Your task to perform on an android device: Go to sound settings Image 0: 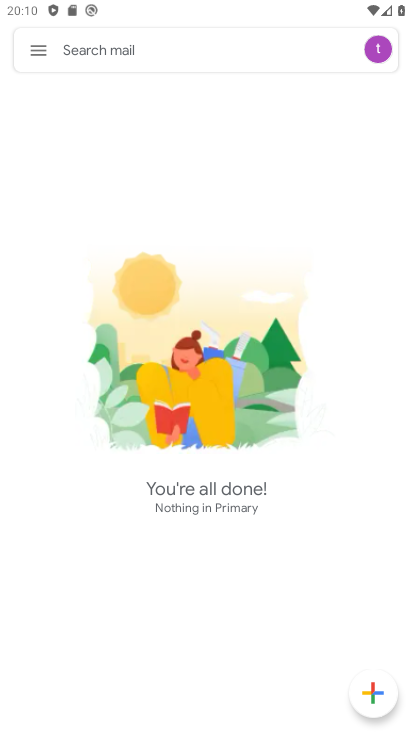
Step 0: press home button
Your task to perform on an android device: Go to sound settings Image 1: 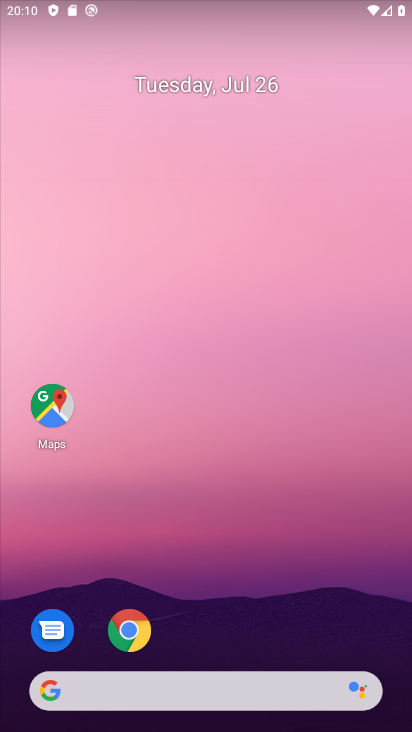
Step 1: drag from (374, 612) to (385, 510)
Your task to perform on an android device: Go to sound settings Image 2: 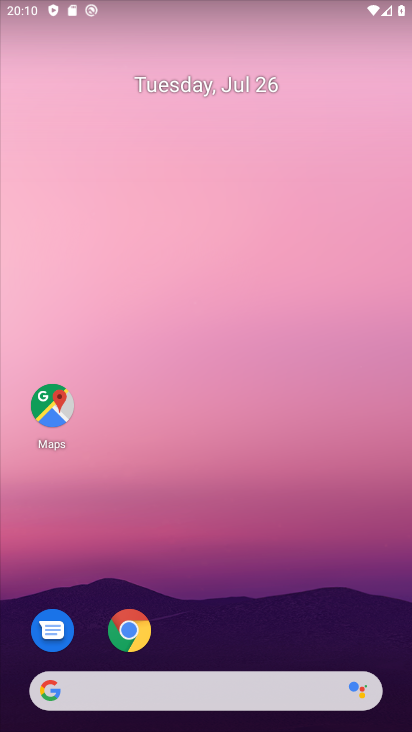
Step 2: drag from (348, 600) to (353, 46)
Your task to perform on an android device: Go to sound settings Image 3: 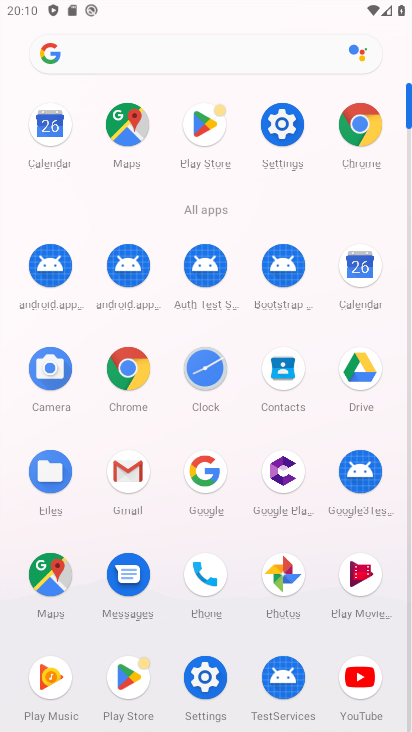
Step 3: click (275, 131)
Your task to perform on an android device: Go to sound settings Image 4: 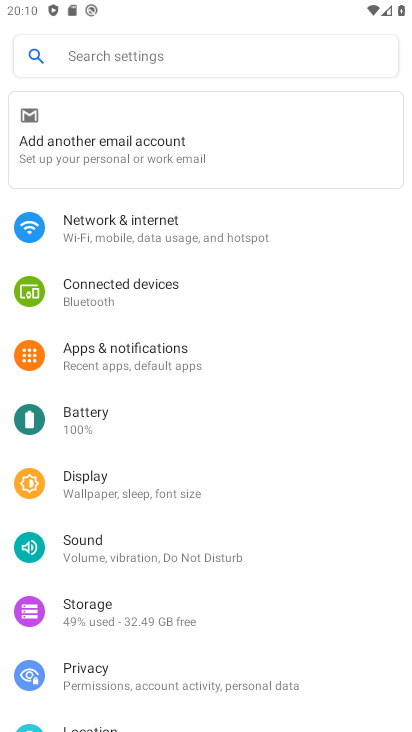
Step 4: drag from (315, 437) to (321, 394)
Your task to perform on an android device: Go to sound settings Image 5: 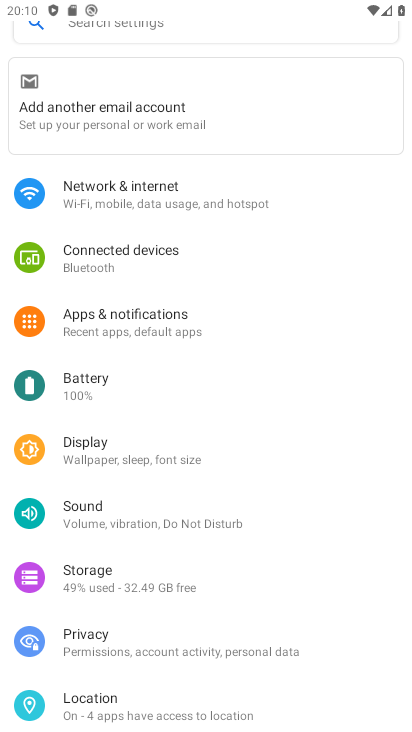
Step 5: drag from (332, 536) to (341, 481)
Your task to perform on an android device: Go to sound settings Image 6: 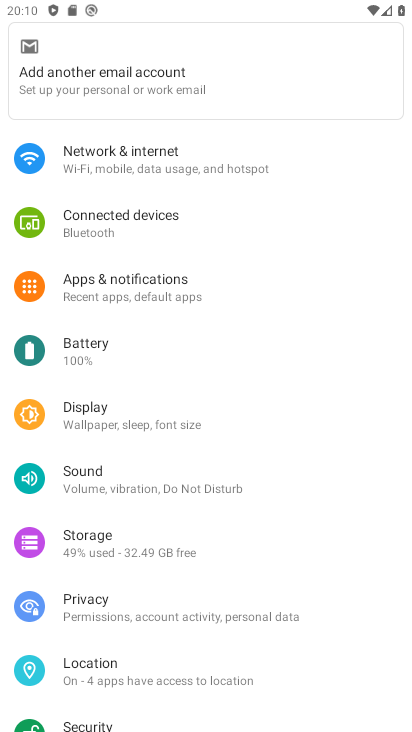
Step 6: drag from (342, 525) to (338, 451)
Your task to perform on an android device: Go to sound settings Image 7: 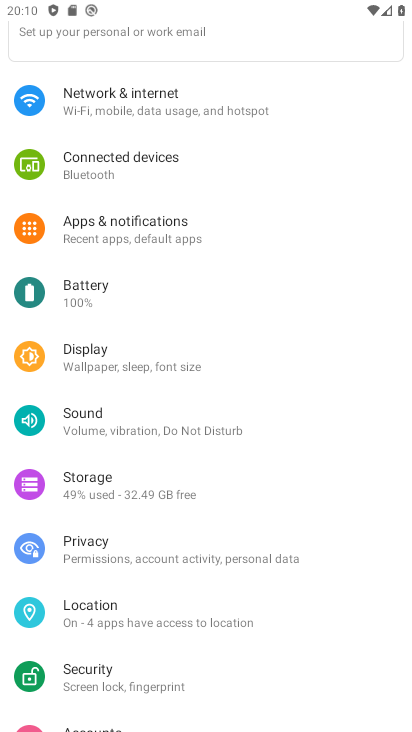
Step 7: drag from (341, 529) to (343, 456)
Your task to perform on an android device: Go to sound settings Image 8: 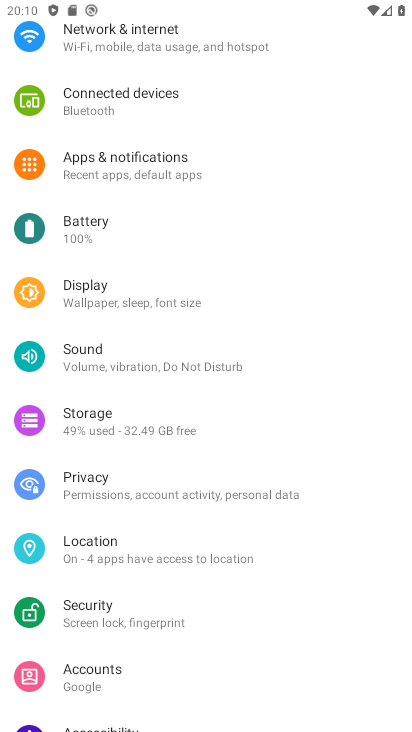
Step 8: drag from (342, 531) to (345, 463)
Your task to perform on an android device: Go to sound settings Image 9: 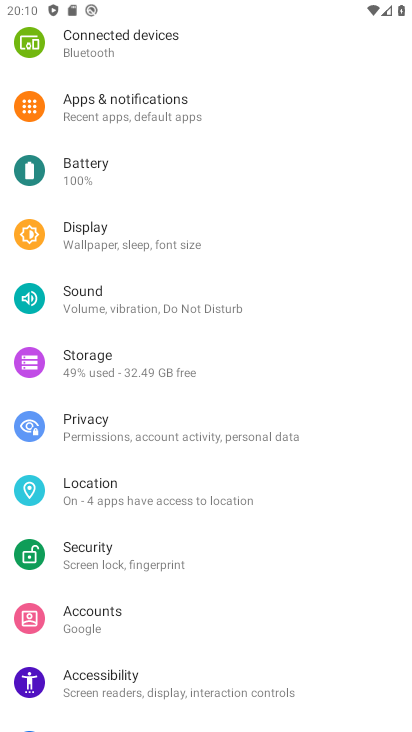
Step 9: drag from (346, 509) to (343, 464)
Your task to perform on an android device: Go to sound settings Image 10: 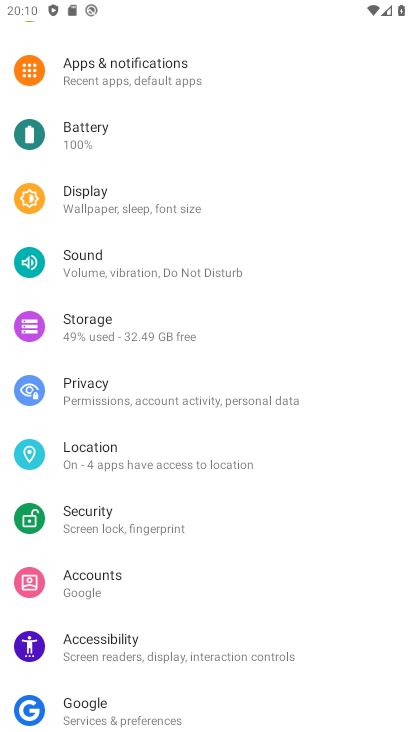
Step 10: drag from (349, 543) to (355, 439)
Your task to perform on an android device: Go to sound settings Image 11: 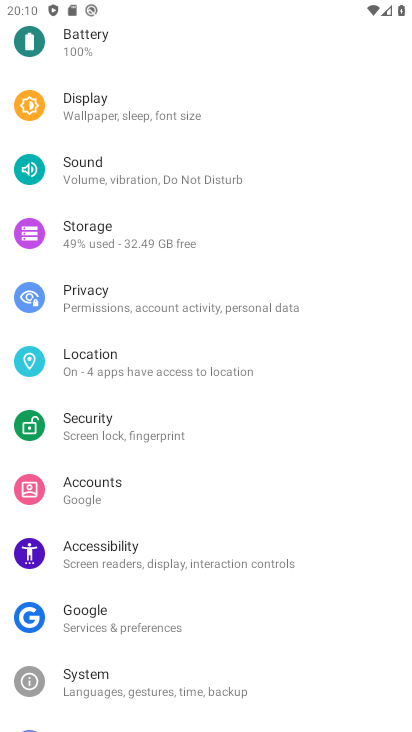
Step 11: drag from (341, 343) to (334, 395)
Your task to perform on an android device: Go to sound settings Image 12: 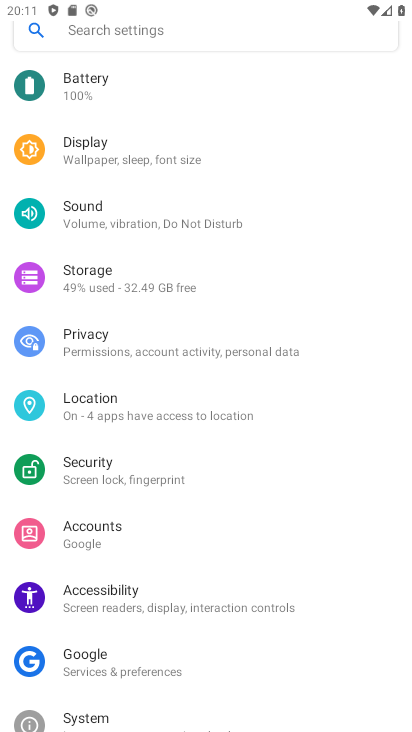
Step 12: drag from (334, 289) to (335, 357)
Your task to perform on an android device: Go to sound settings Image 13: 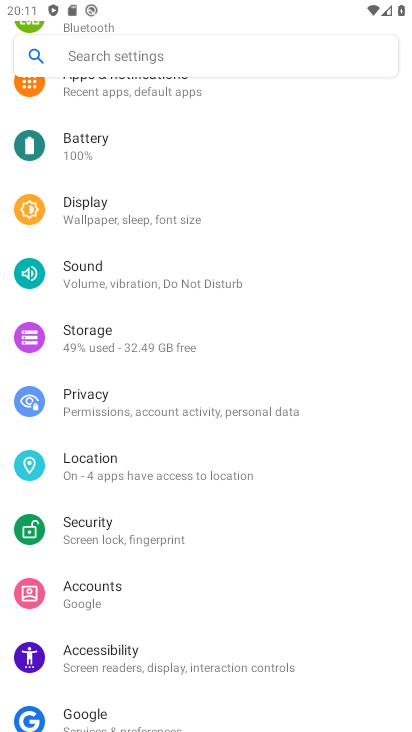
Step 13: drag from (335, 268) to (335, 395)
Your task to perform on an android device: Go to sound settings Image 14: 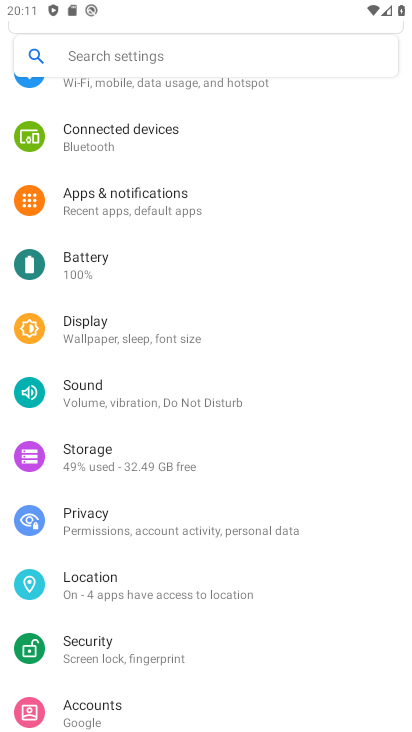
Step 14: drag from (333, 245) to (344, 487)
Your task to perform on an android device: Go to sound settings Image 15: 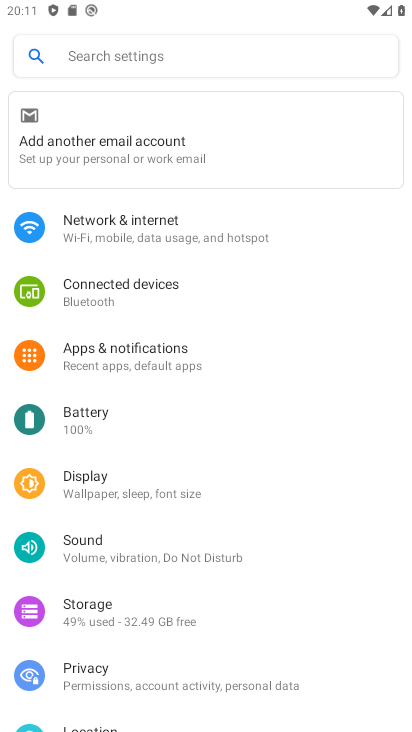
Step 15: click (255, 567)
Your task to perform on an android device: Go to sound settings Image 16: 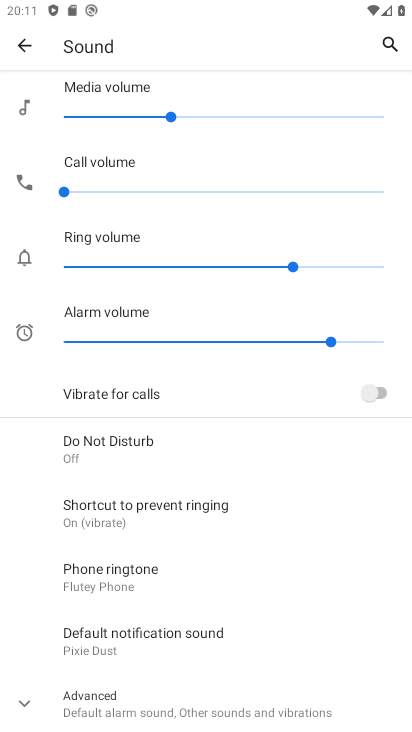
Step 16: task complete